Your task to perform on an android device: open app "Pluto TV - Live TV and Movies" (install if not already installed) and go to login screen Image 0: 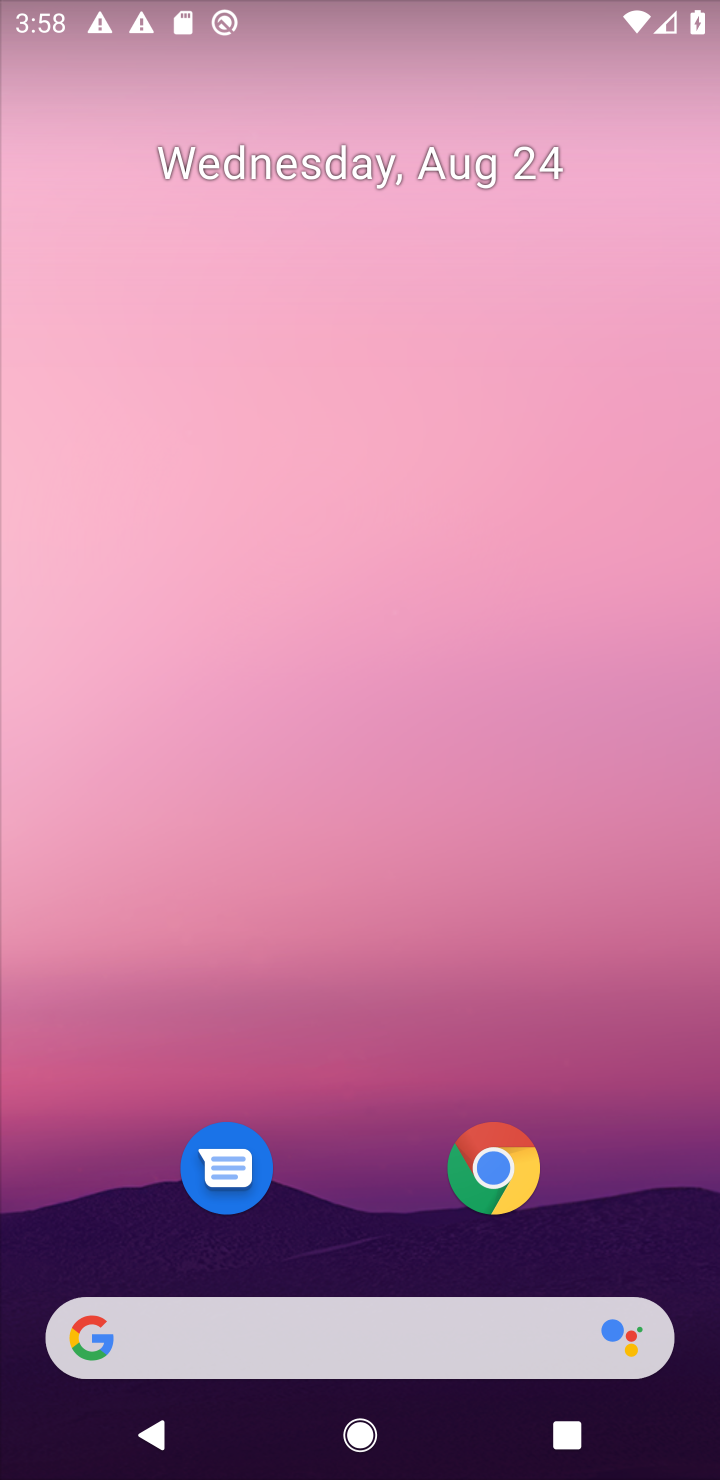
Step 0: drag from (629, 893) to (586, 173)
Your task to perform on an android device: open app "Pluto TV - Live TV and Movies" (install if not already installed) and go to login screen Image 1: 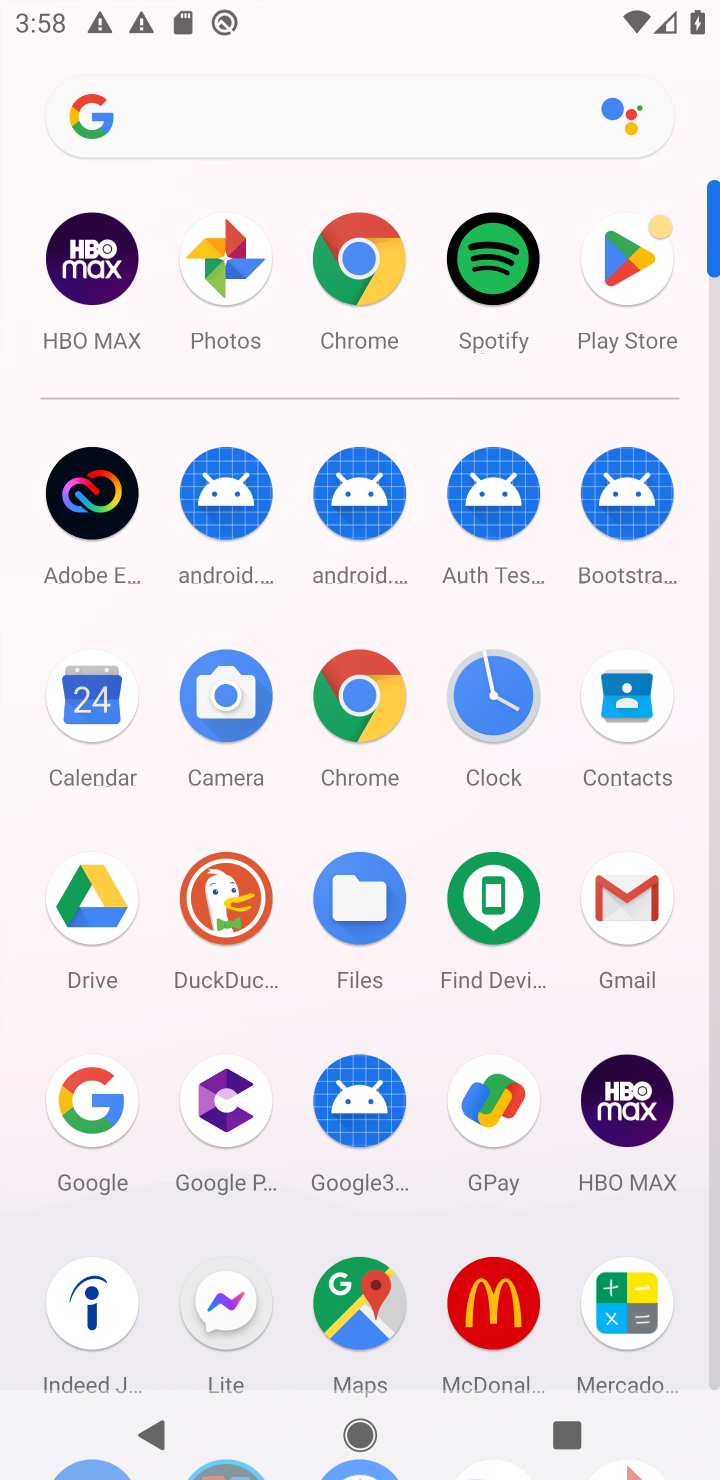
Step 1: click (715, 1370)
Your task to perform on an android device: open app "Pluto TV - Live TV and Movies" (install if not already installed) and go to login screen Image 2: 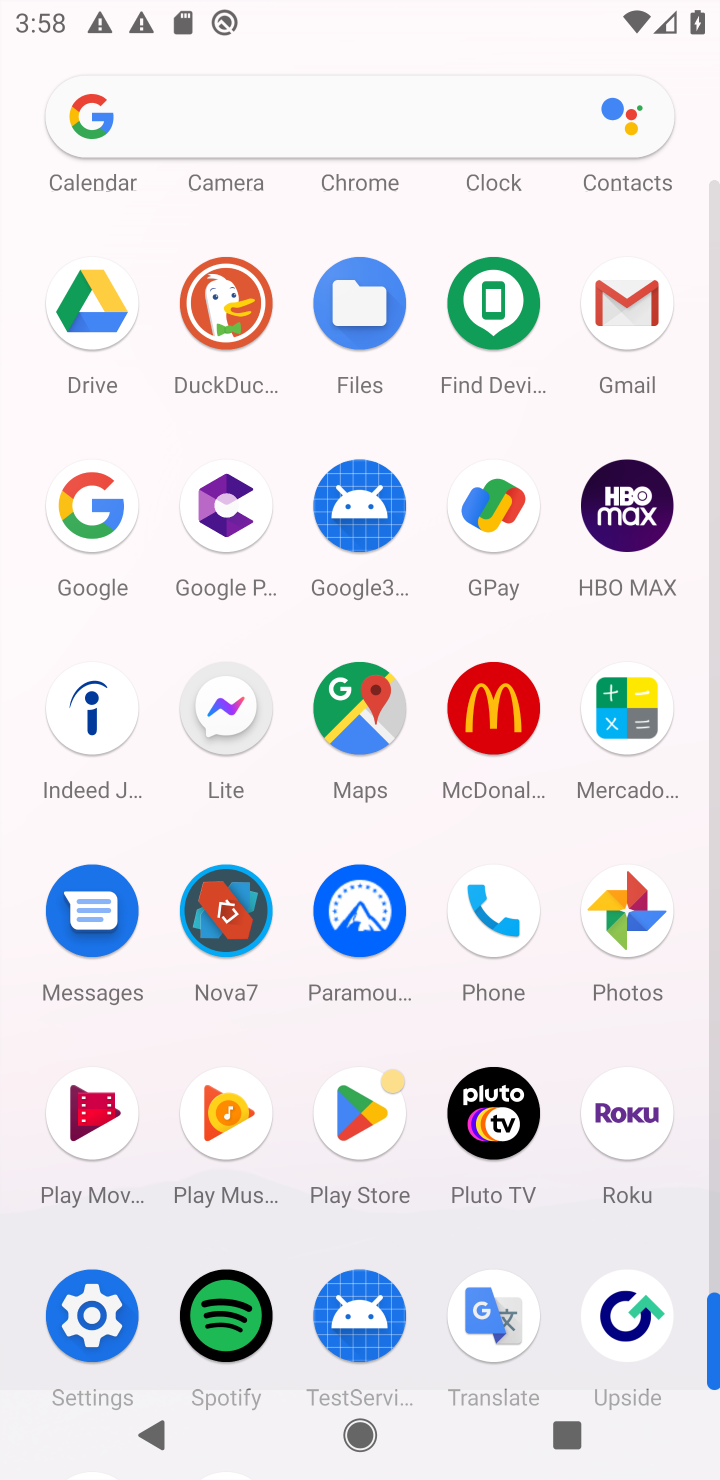
Step 2: click (357, 1114)
Your task to perform on an android device: open app "Pluto TV - Live TV and Movies" (install if not already installed) and go to login screen Image 3: 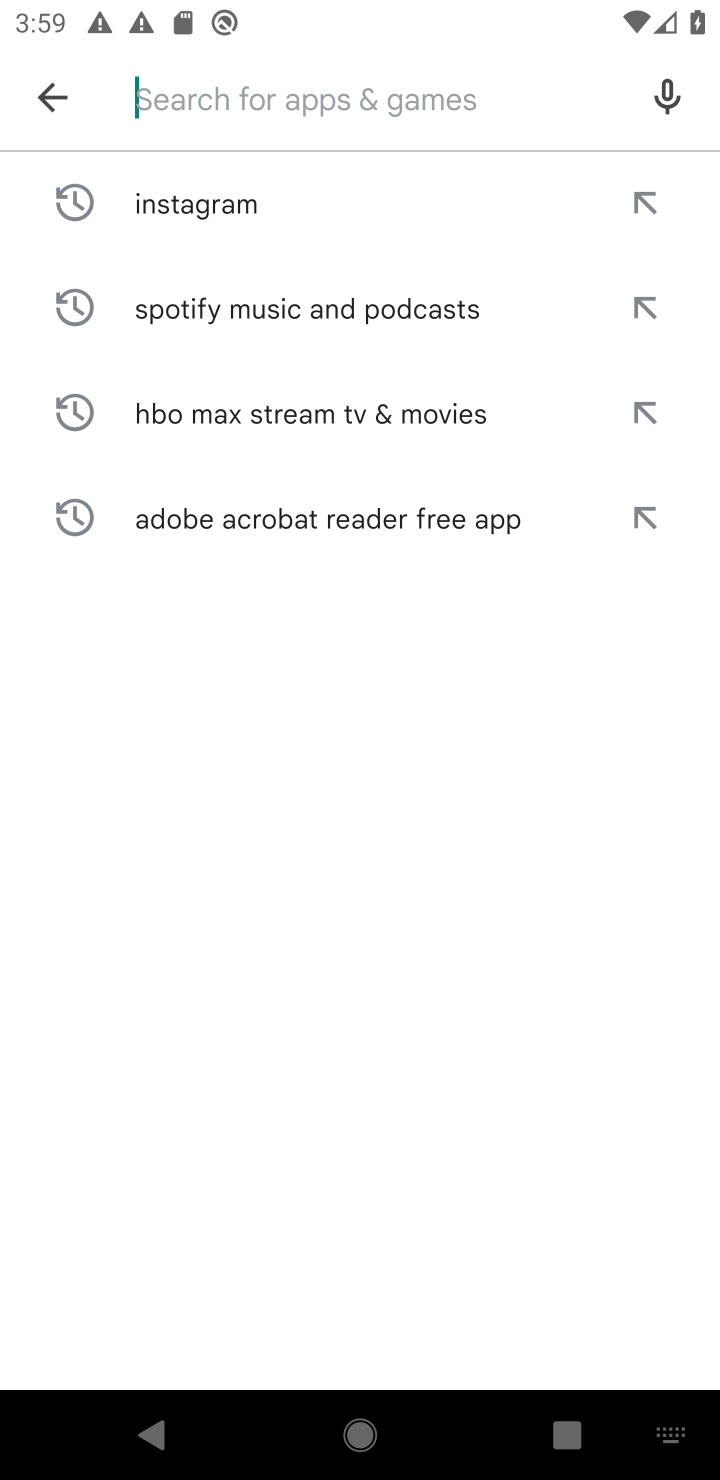
Step 3: type "Pluto TV - Live TV and Movies"
Your task to perform on an android device: open app "Pluto TV - Live TV and Movies" (install if not already installed) and go to login screen Image 4: 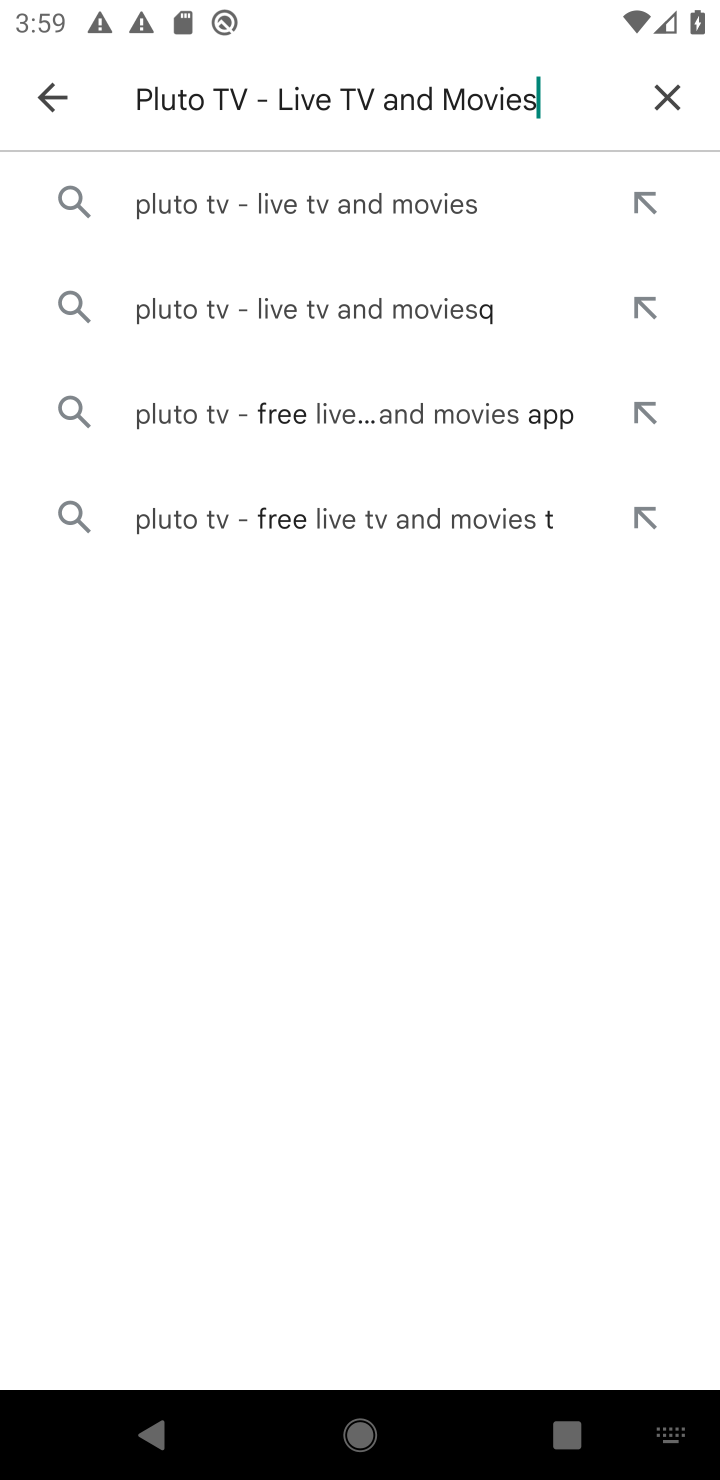
Step 4: click (253, 200)
Your task to perform on an android device: open app "Pluto TV - Live TV and Movies" (install if not already installed) and go to login screen Image 5: 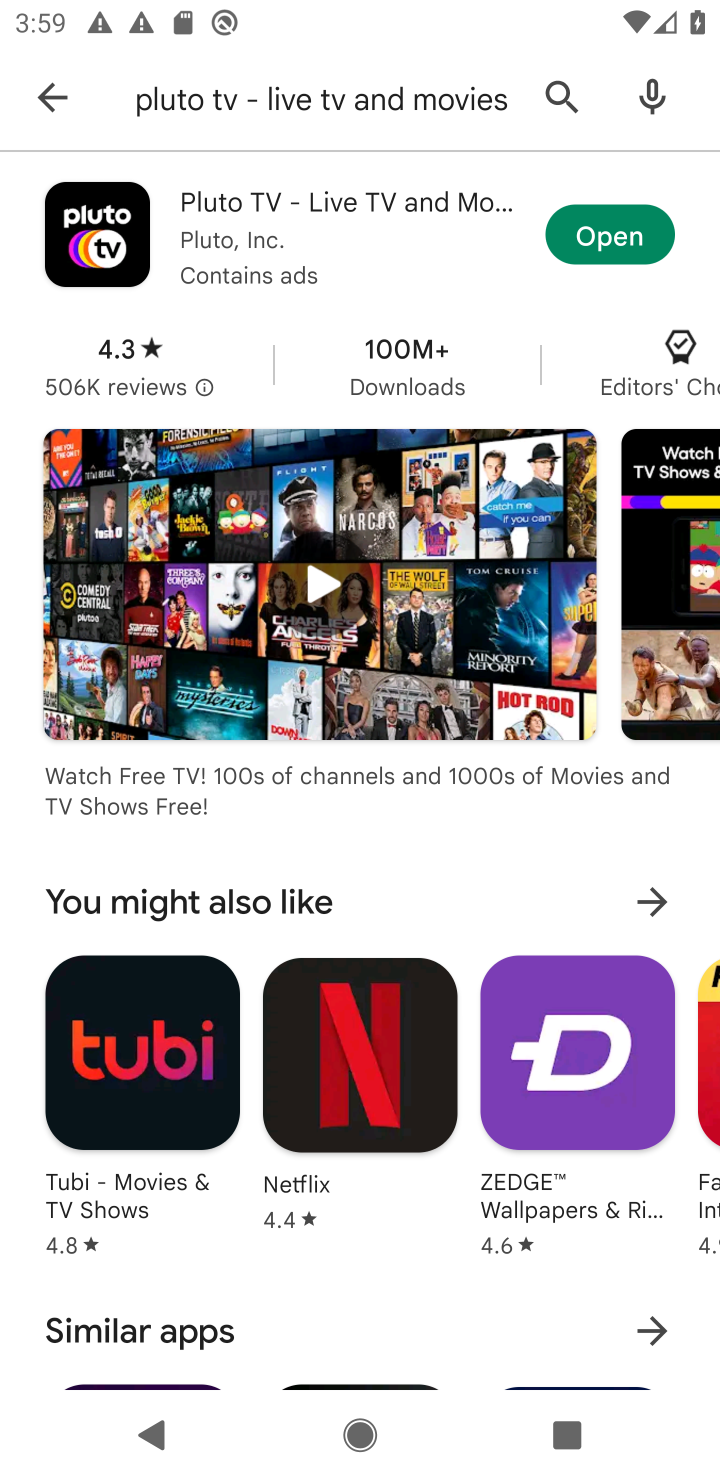
Step 5: click (609, 228)
Your task to perform on an android device: open app "Pluto TV - Live TV and Movies" (install if not already installed) and go to login screen Image 6: 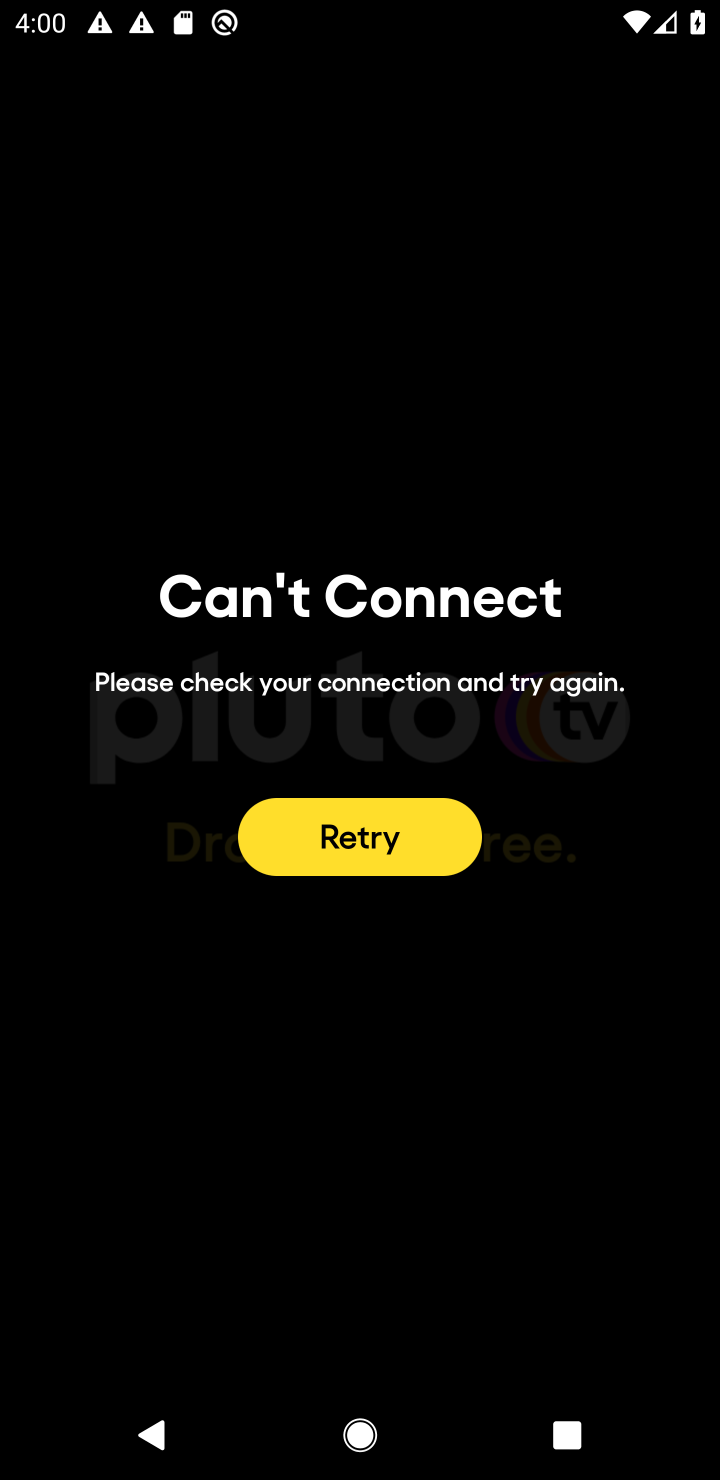
Step 6: task complete